Your task to perform on an android device: Open Wikipedia Image 0: 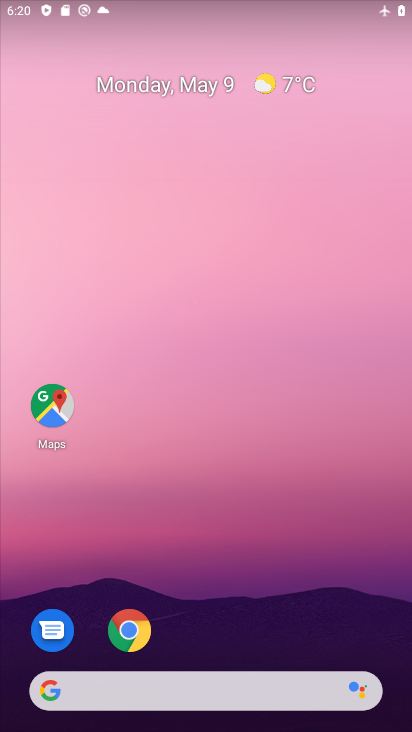
Step 0: click (141, 647)
Your task to perform on an android device: Open Wikipedia Image 1: 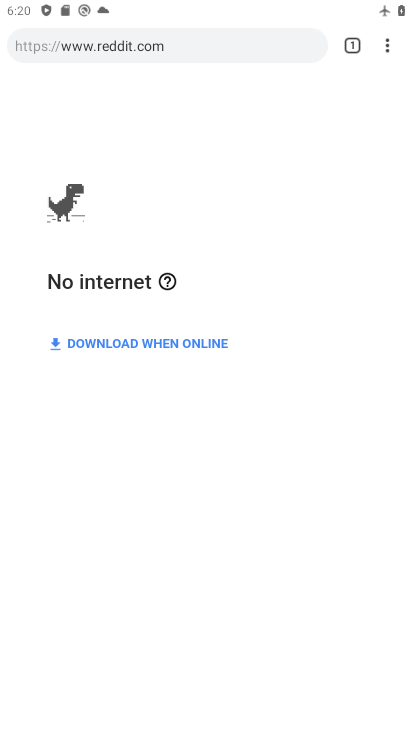
Step 1: click (359, 32)
Your task to perform on an android device: Open Wikipedia Image 2: 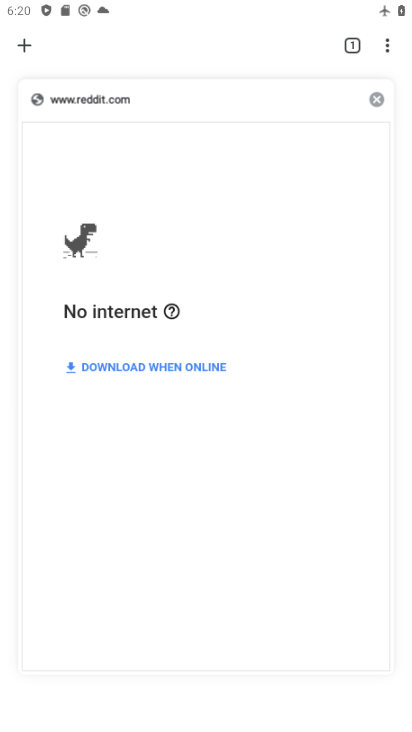
Step 2: click (29, 44)
Your task to perform on an android device: Open Wikipedia Image 3: 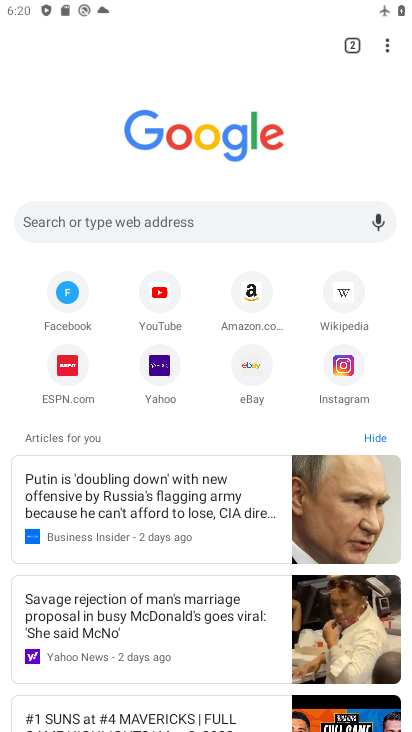
Step 3: click (347, 309)
Your task to perform on an android device: Open Wikipedia Image 4: 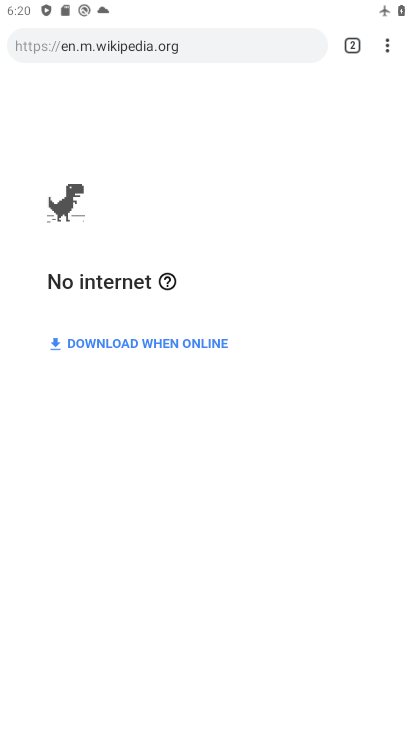
Step 4: task complete